Your task to perform on an android device: See recent photos Image 0: 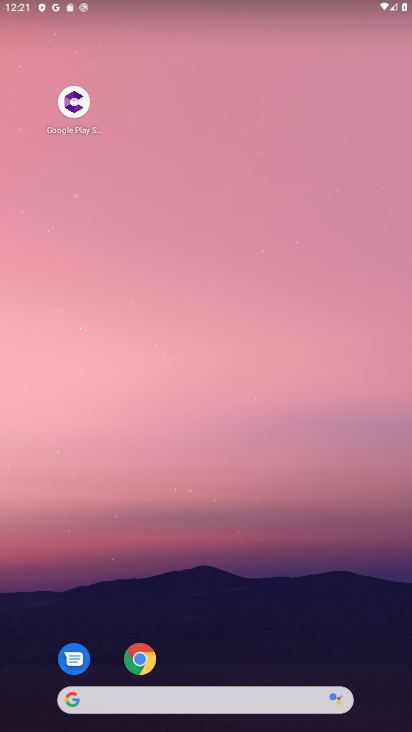
Step 0: drag from (287, 696) to (320, 181)
Your task to perform on an android device: See recent photos Image 1: 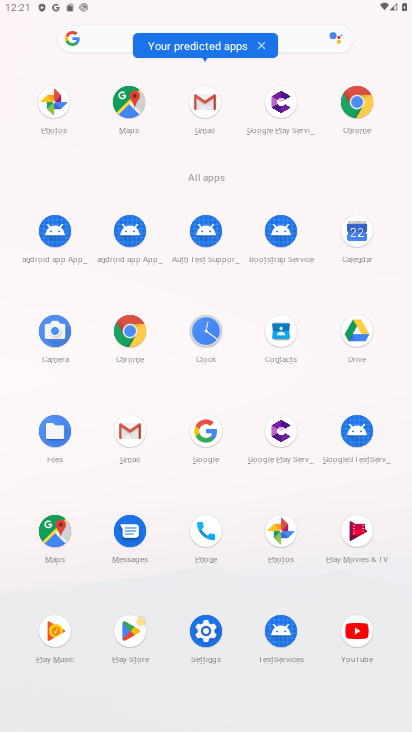
Step 1: click (268, 542)
Your task to perform on an android device: See recent photos Image 2: 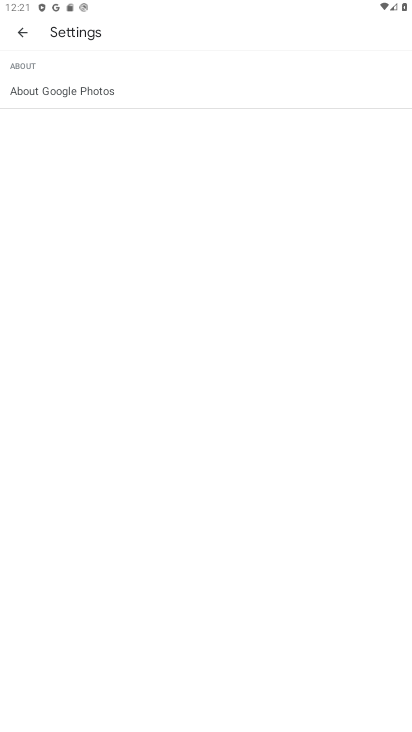
Step 2: click (14, 28)
Your task to perform on an android device: See recent photos Image 3: 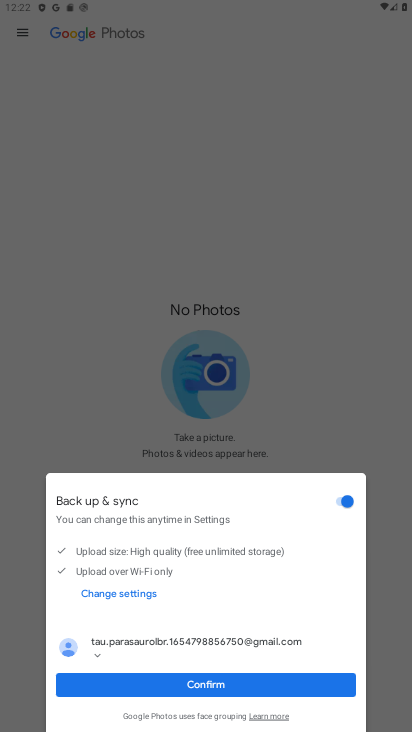
Step 3: click (241, 682)
Your task to perform on an android device: See recent photos Image 4: 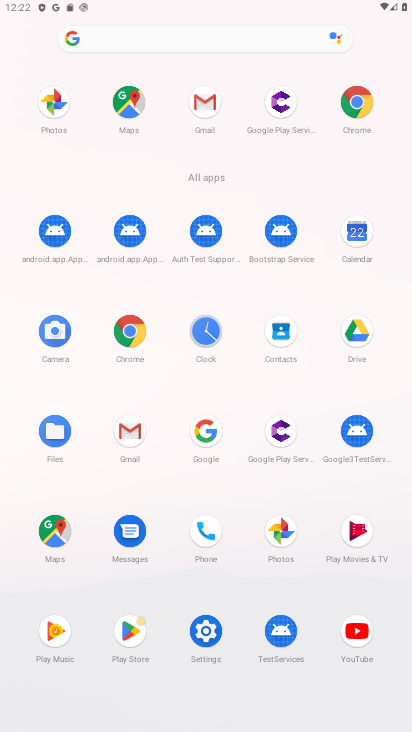
Step 4: click (282, 530)
Your task to perform on an android device: See recent photos Image 5: 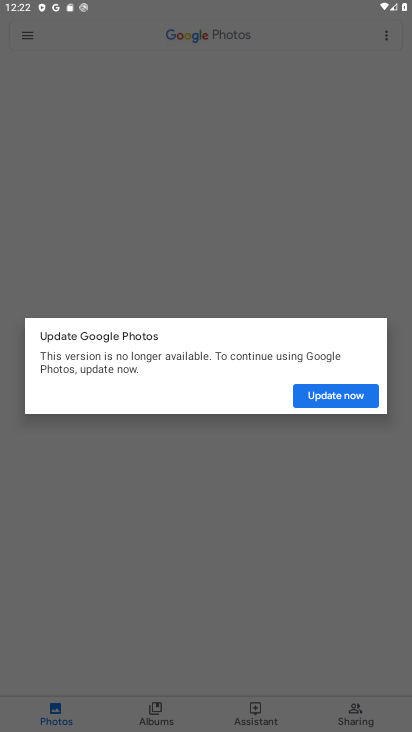
Step 5: click (336, 400)
Your task to perform on an android device: See recent photos Image 6: 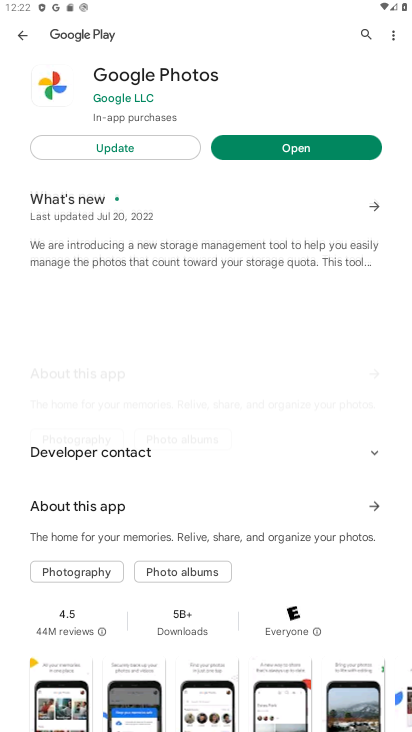
Step 6: click (127, 144)
Your task to perform on an android device: See recent photos Image 7: 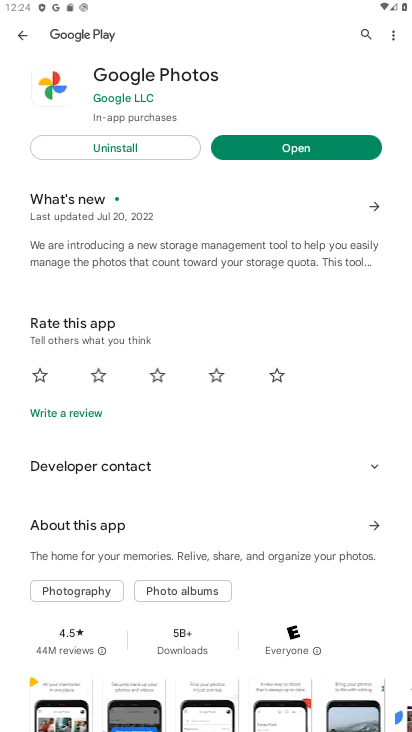
Step 7: click (266, 153)
Your task to perform on an android device: See recent photos Image 8: 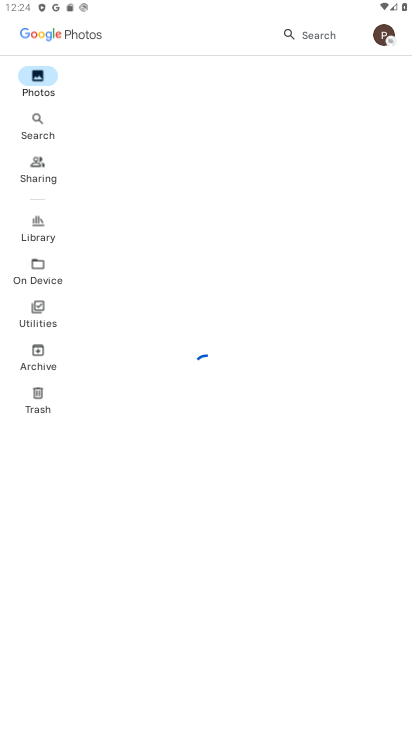
Step 8: task complete